Your task to perform on an android device: Open notification settings Image 0: 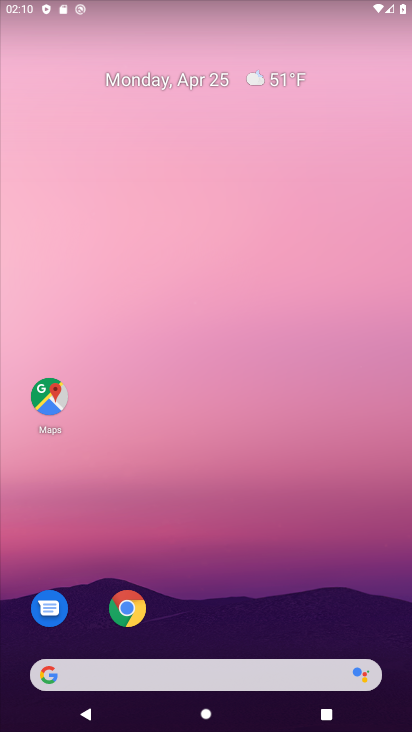
Step 0: drag from (212, 627) to (146, 33)
Your task to perform on an android device: Open notification settings Image 1: 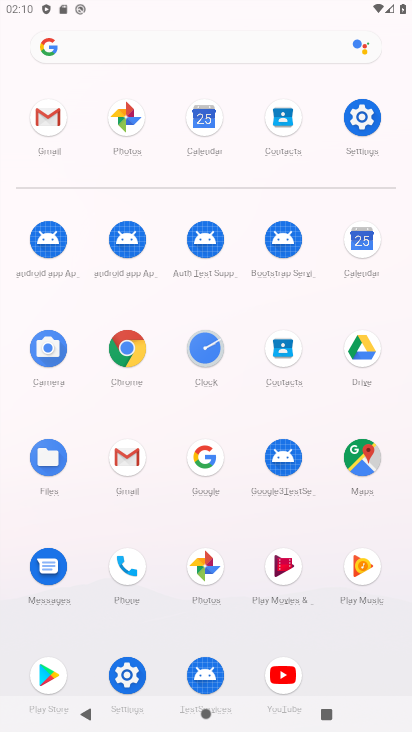
Step 1: click (369, 127)
Your task to perform on an android device: Open notification settings Image 2: 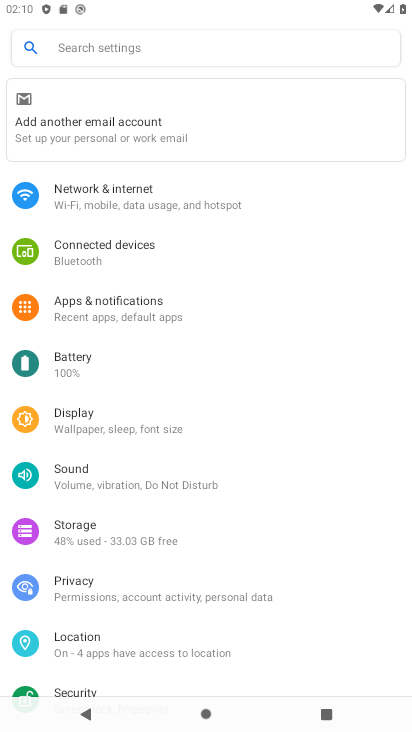
Step 2: click (165, 304)
Your task to perform on an android device: Open notification settings Image 3: 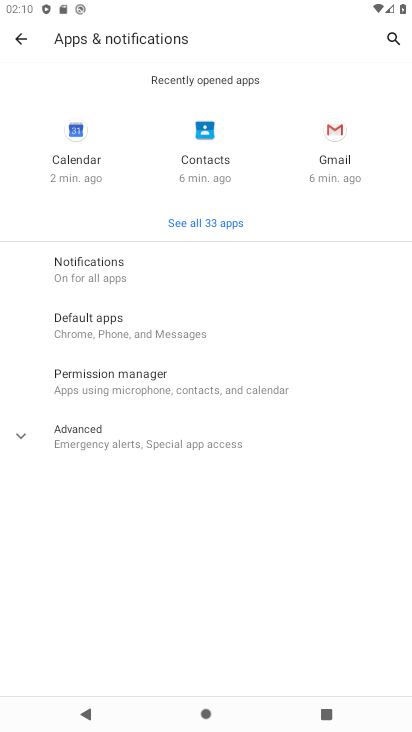
Step 3: click (156, 279)
Your task to perform on an android device: Open notification settings Image 4: 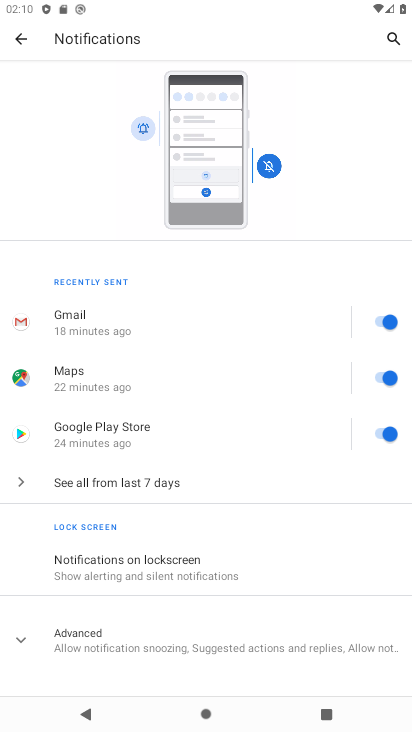
Step 4: task complete